Your task to perform on an android device: Show me recent news Image 0: 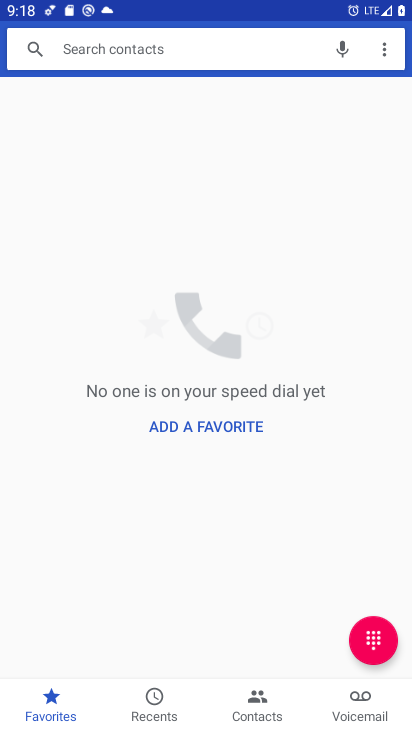
Step 0: press home button
Your task to perform on an android device: Show me recent news Image 1: 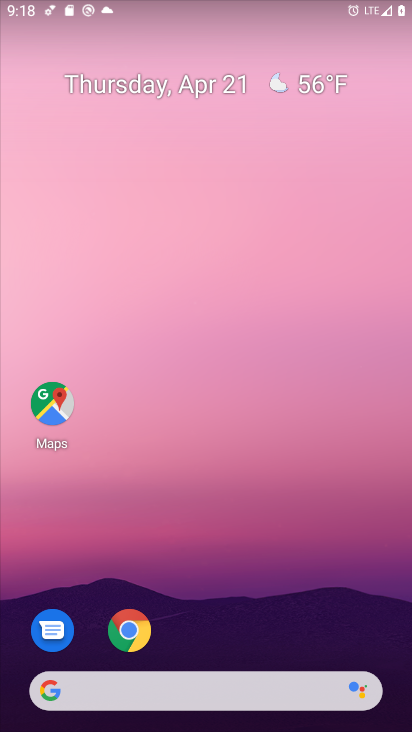
Step 1: click (167, 683)
Your task to perform on an android device: Show me recent news Image 2: 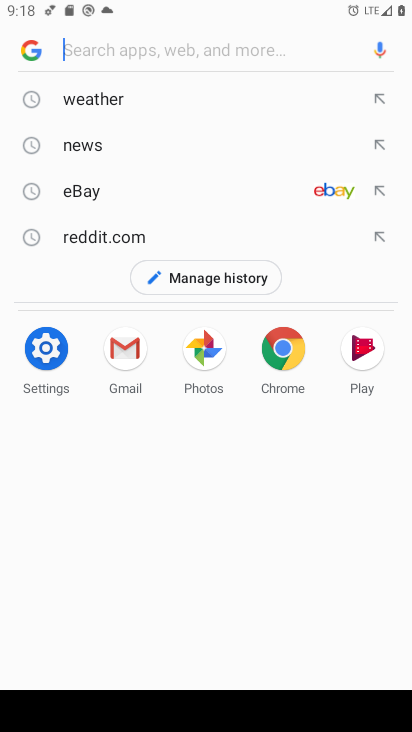
Step 2: type "recent news"
Your task to perform on an android device: Show me recent news Image 3: 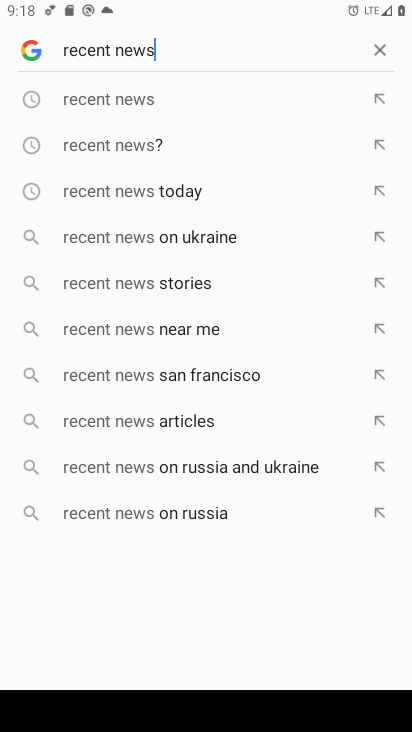
Step 3: click (151, 72)
Your task to perform on an android device: Show me recent news Image 4: 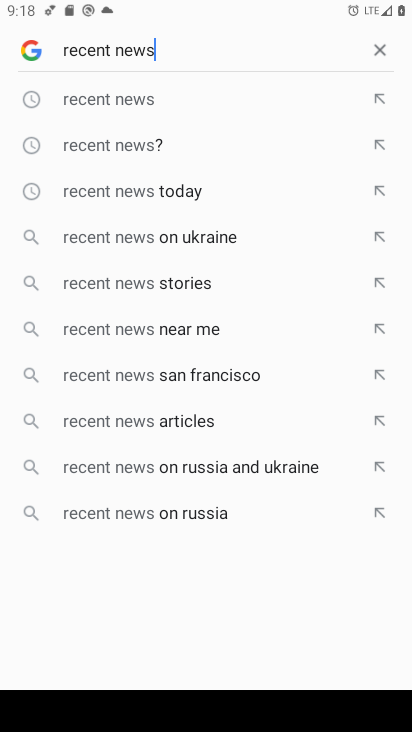
Step 4: click (128, 97)
Your task to perform on an android device: Show me recent news Image 5: 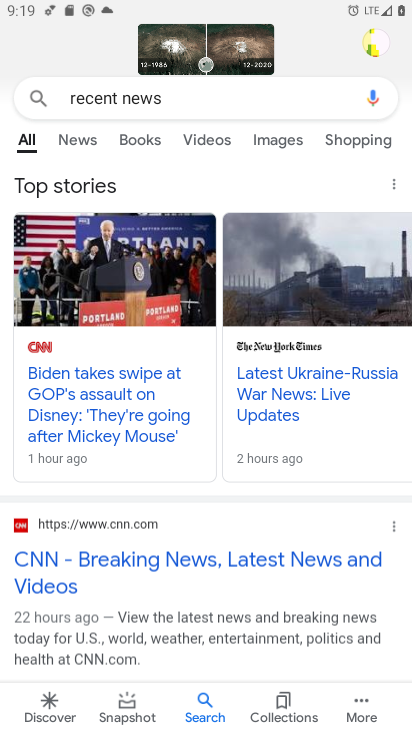
Step 5: task complete